Your task to perform on an android device: Open Google Maps Image 0: 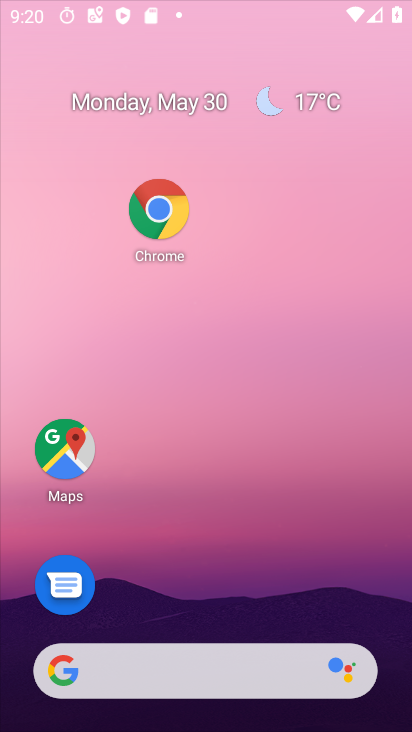
Step 0: drag from (202, 248) to (219, 194)
Your task to perform on an android device: Open Google Maps Image 1: 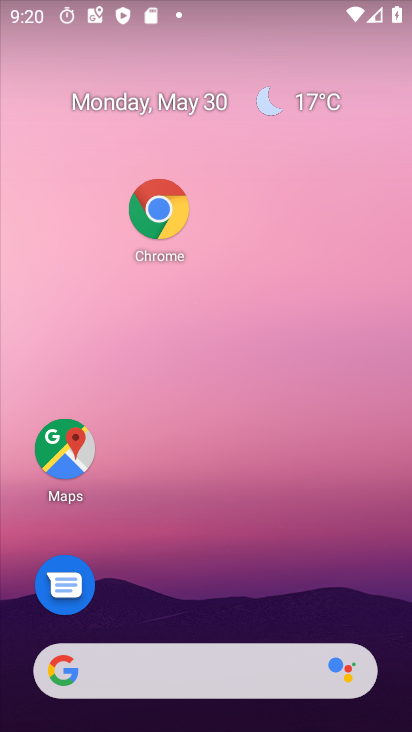
Step 1: click (150, 213)
Your task to perform on an android device: Open Google Maps Image 2: 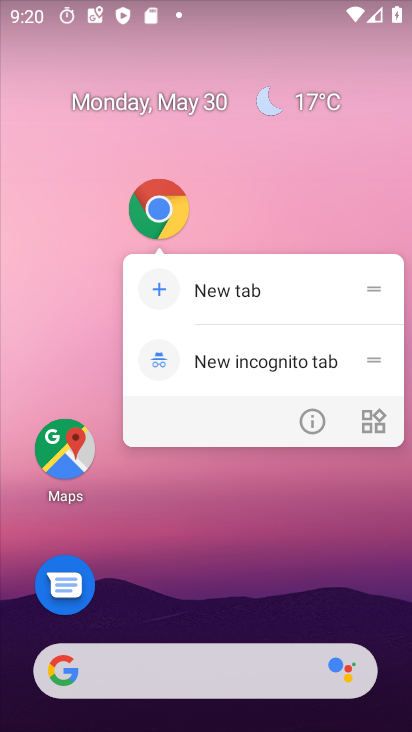
Step 2: click (65, 463)
Your task to perform on an android device: Open Google Maps Image 3: 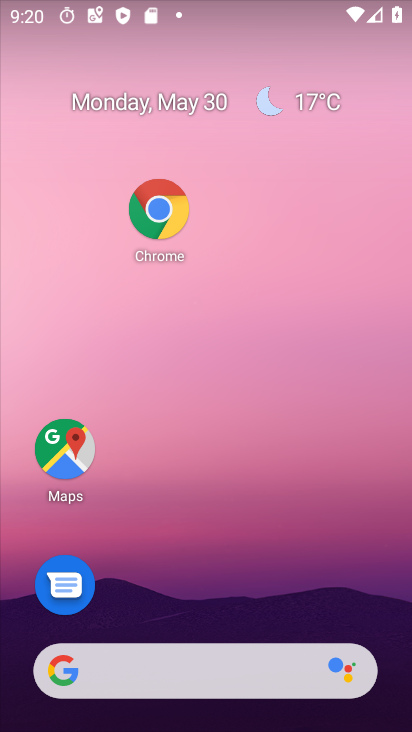
Step 3: click (65, 463)
Your task to perform on an android device: Open Google Maps Image 4: 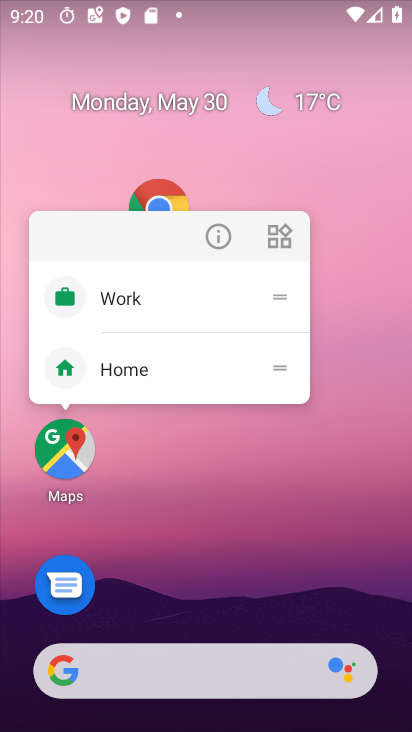
Step 4: click (226, 231)
Your task to perform on an android device: Open Google Maps Image 5: 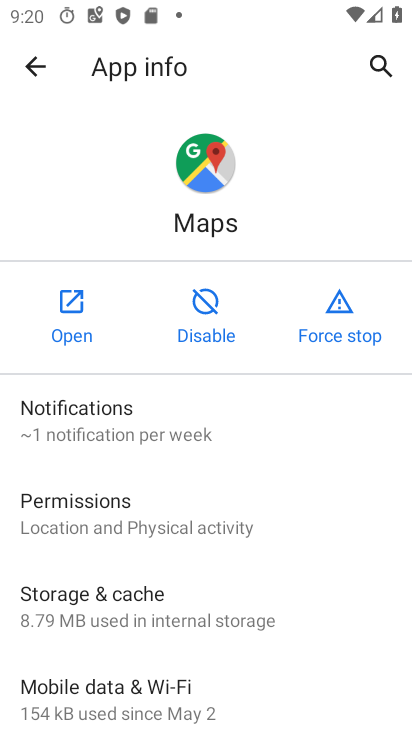
Step 5: click (73, 308)
Your task to perform on an android device: Open Google Maps Image 6: 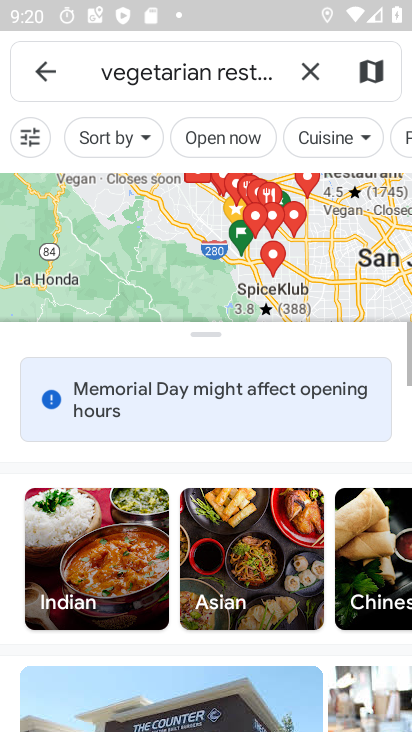
Step 6: task complete